Your task to perform on an android device: turn off location Image 0: 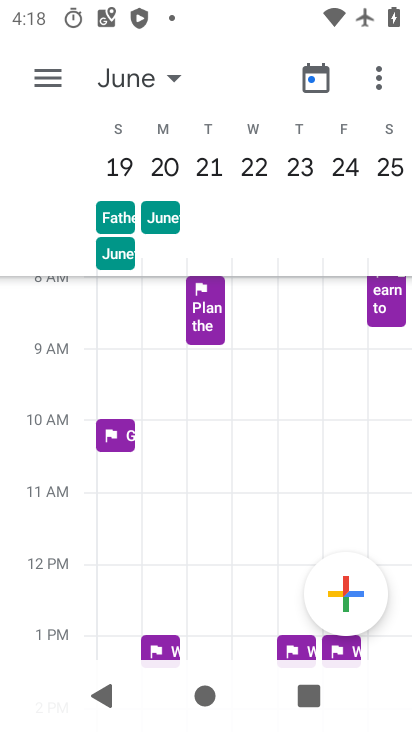
Step 0: press home button
Your task to perform on an android device: turn off location Image 1: 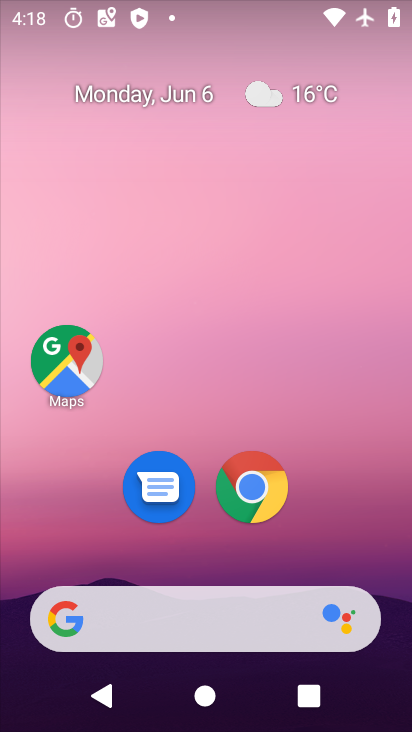
Step 1: drag from (332, 514) to (356, 115)
Your task to perform on an android device: turn off location Image 2: 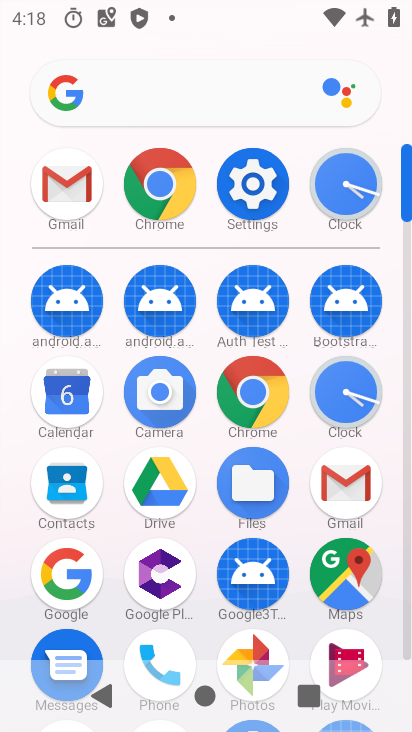
Step 2: click (255, 160)
Your task to perform on an android device: turn off location Image 3: 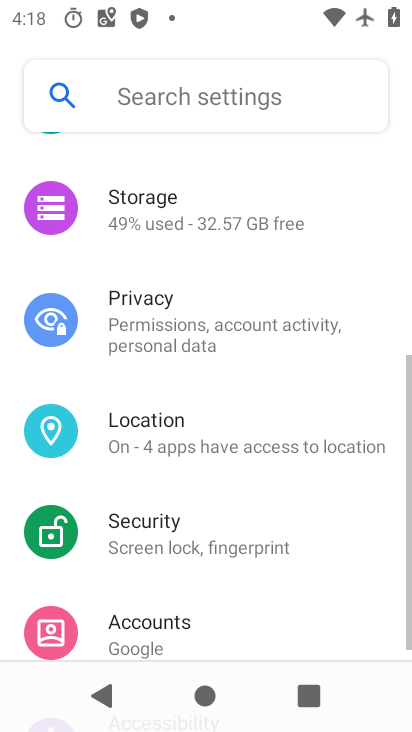
Step 3: drag from (255, 160) to (263, 598)
Your task to perform on an android device: turn off location Image 4: 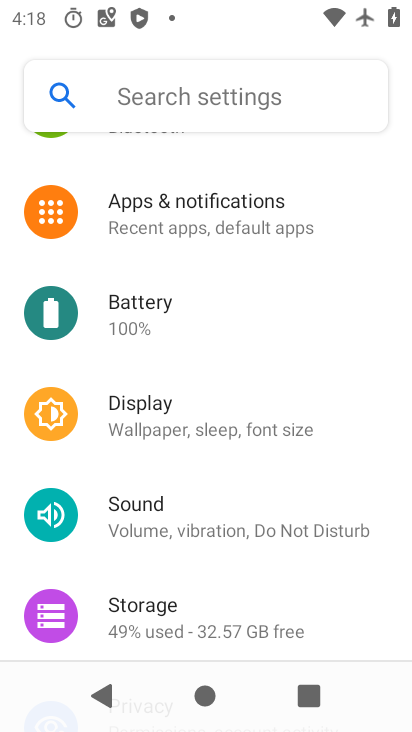
Step 4: drag from (246, 235) to (220, 567)
Your task to perform on an android device: turn off location Image 5: 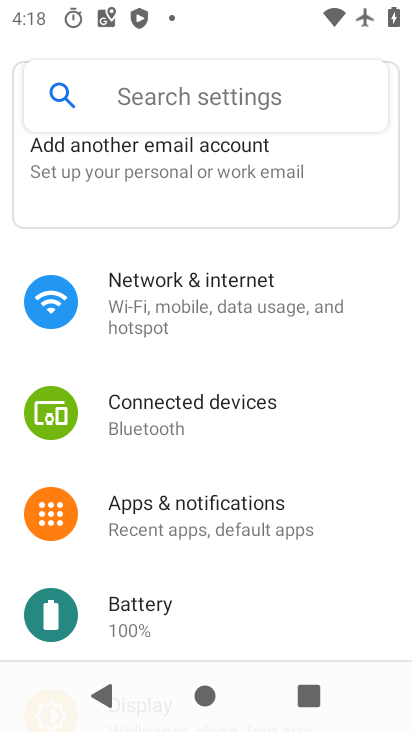
Step 5: drag from (234, 526) to (315, 87)
Your task to perform on an android device: turn off location Image 6: 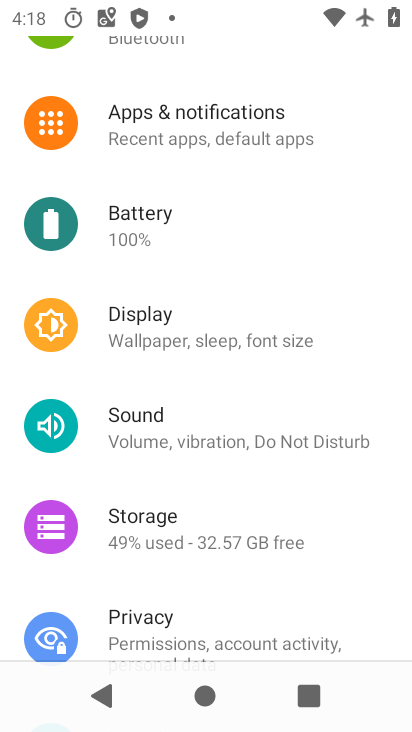
Step 6: drag from (200, 502) to (279, 188)
Your task to perform on an android device: turn off location Image 7: 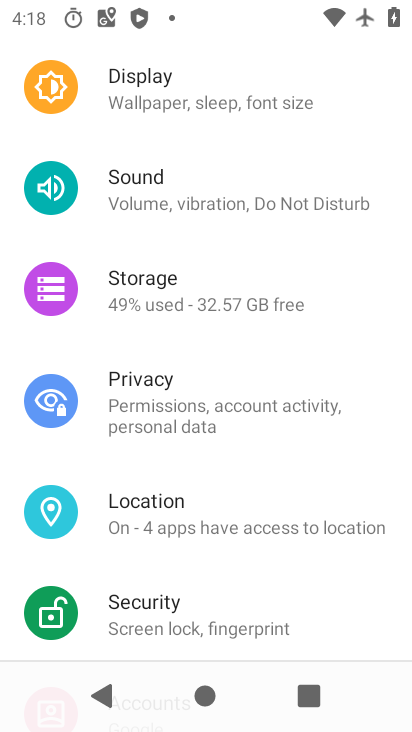
Step 7: click (168, 516)
Your task to perform on an android device: turn off location Image 8: 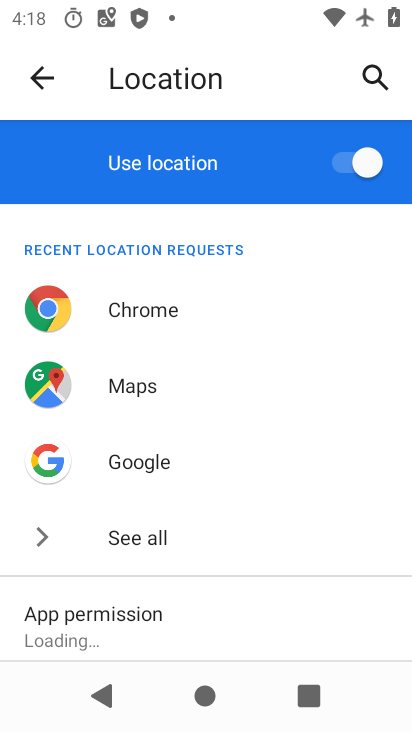
Step 8: click (352, 168)
Your task to perform on an android device: turn off location Image 9: 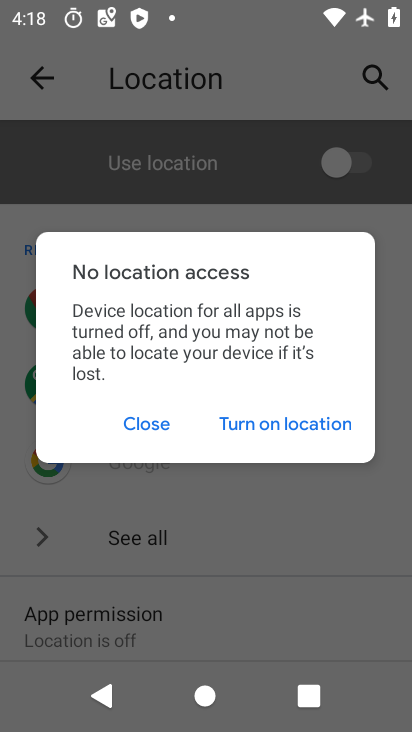
Step 9: task complete